Your task to perform on an android device: toggle pop-ups in chrome Image 0: 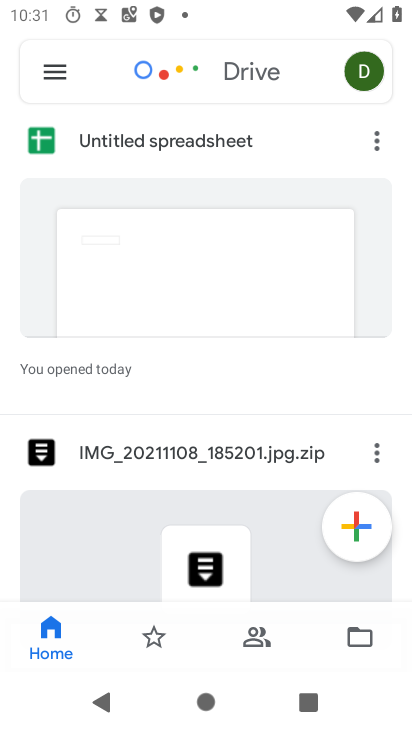
Step 0: press home button
Your task to perform on an android device: toggle pop-ups in chrome Image 1: 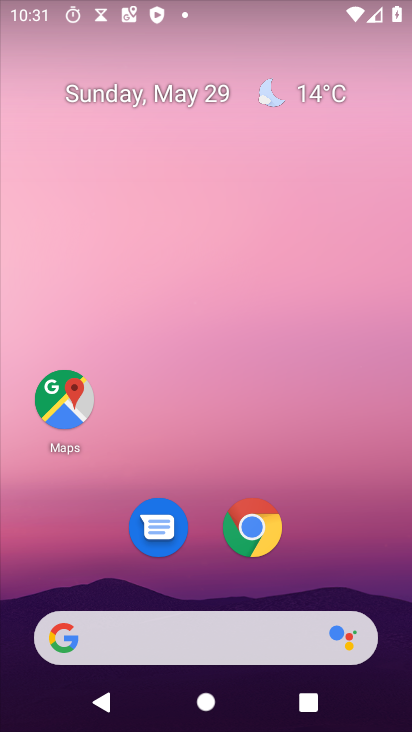
Step 1: click (251, 543)
Your task to perform on an android device: toggle pop-ups in chrome Image 2: 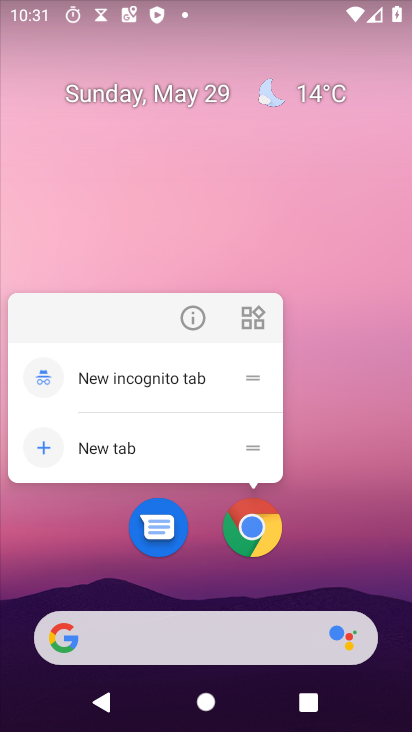
Step 2: click (259, 519)
Your task to perform on an android device: toggle pop-ups in chrome Image 3: 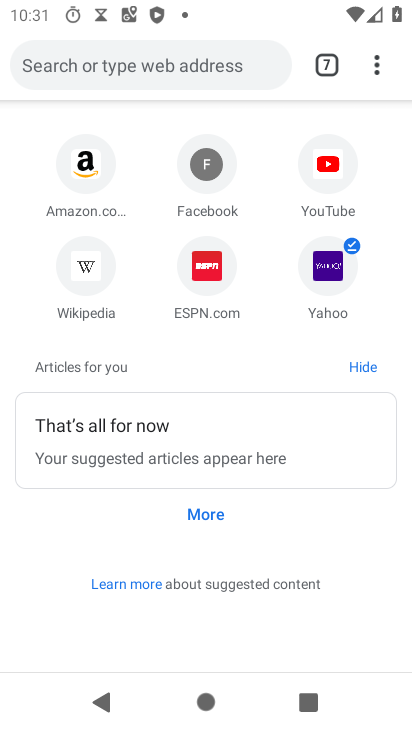
Step 3: drag from (369, 69) to (243, 544)
Your task to perform on an android device: toggle pop-ups in chrome Image 4: 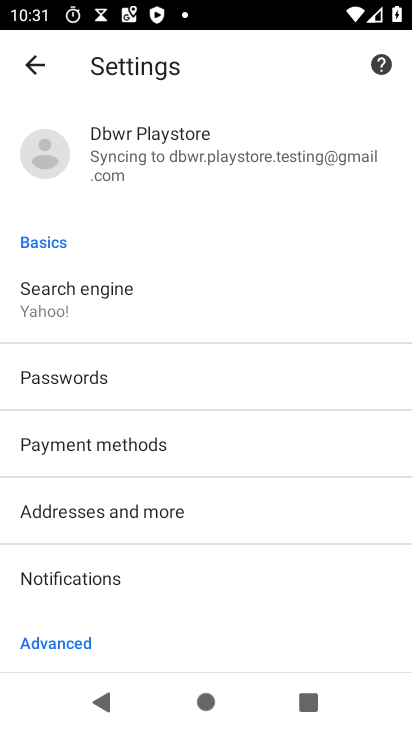
Step 4: drag from (197, 594) to (343, 126)
Your task to perform on an android device: toggle pop-ups in chrome Image 5: 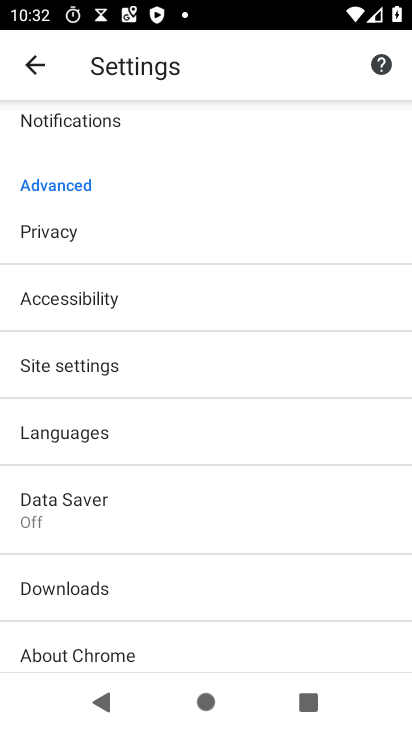
Step 5: click (132, 370)
Your task to perform on an android device: toggle pop-ups in chrome Image 6: 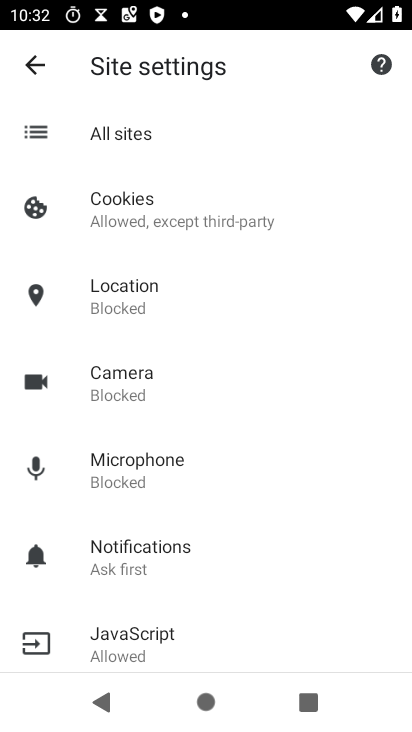
Step 6: drag from (242, 571) to (351, 176)
Your task to perform on an android device: toggle pop-ups in chrome Image 7: 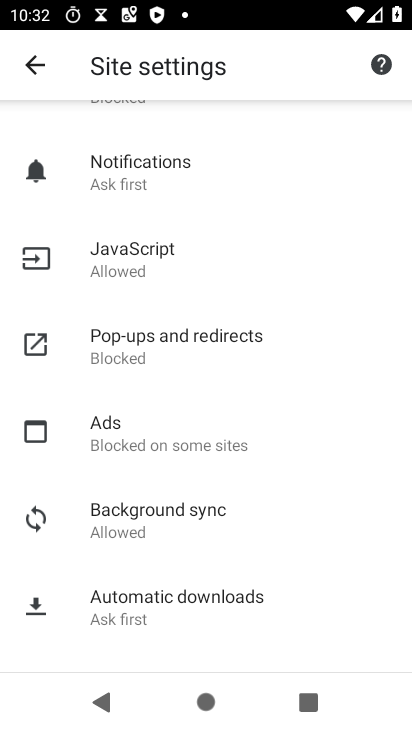
Step 7: click (190, 344)
Your task to perform on an android device: toggle pop-ups in chrome Image 8: 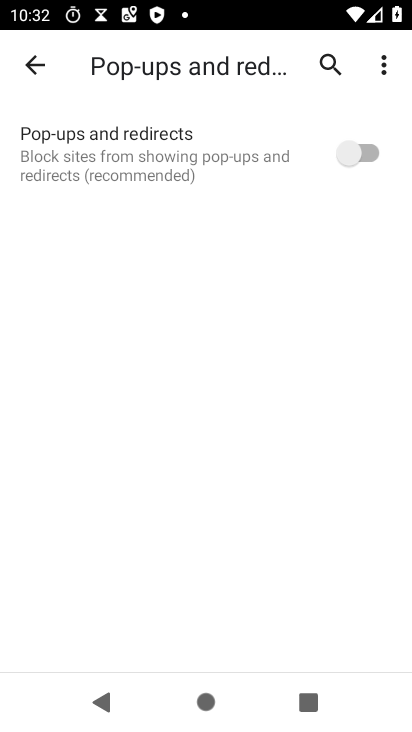
Step 8: click (365, 148)
Your task to perform on an android device: toggle pop-ups in chrome Image 9: 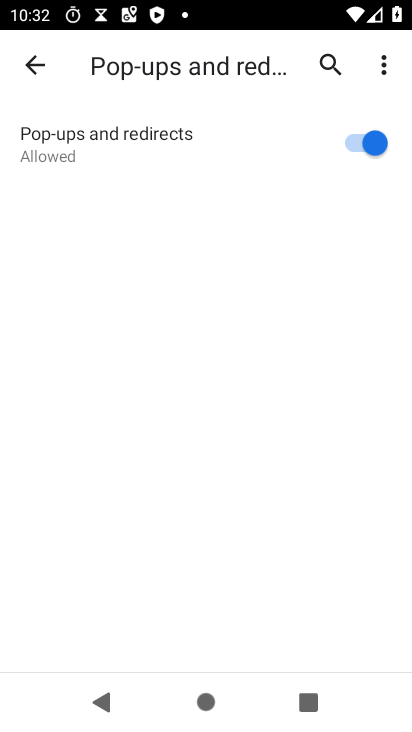
Step 9: task complete